Your task to perform on an android device: toggle translation in the chrome app Image 0: 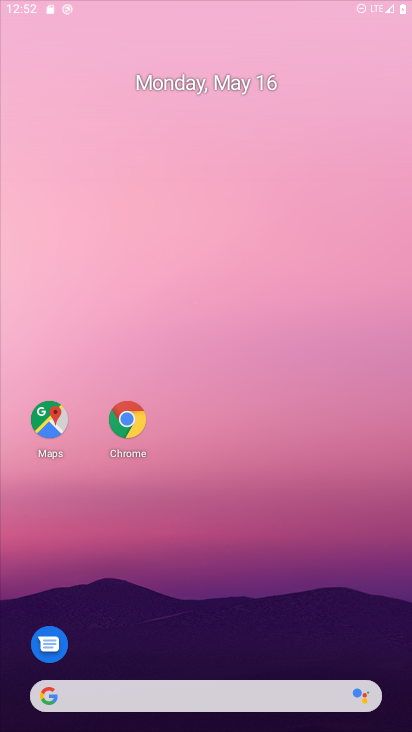
Step 0: click (199, 144)
Your task to perform on an android device: toggle translation in the chrome app Image 1: 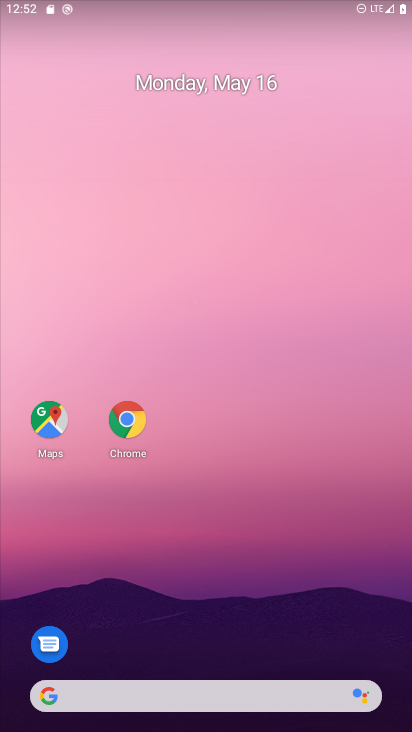
Step 1: drag from (212, 563) to (205, 196)
Your task to perform on an android device: toggle translation in the chrome app Image 2: 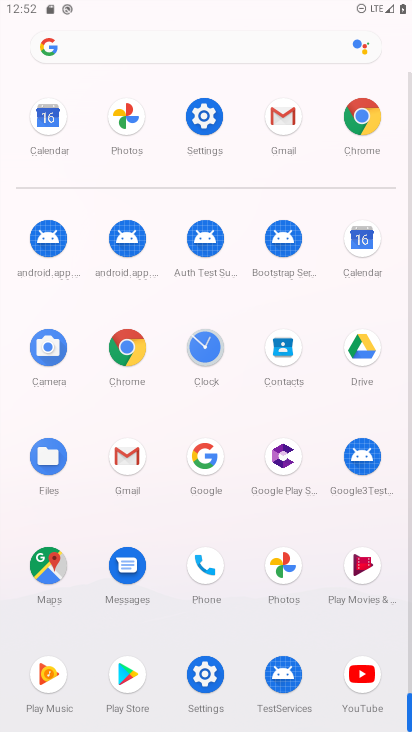
Step 2: click (367, 108)
Your task to perform on an android device: toggle translation in the chrome app Image 3: 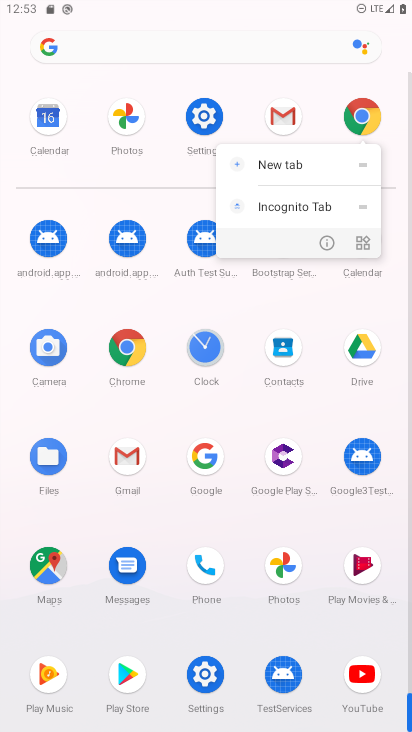
Step 3: click (318, 236)
Your task to perform on an android device: toggle translation in the chrome app Image 4: 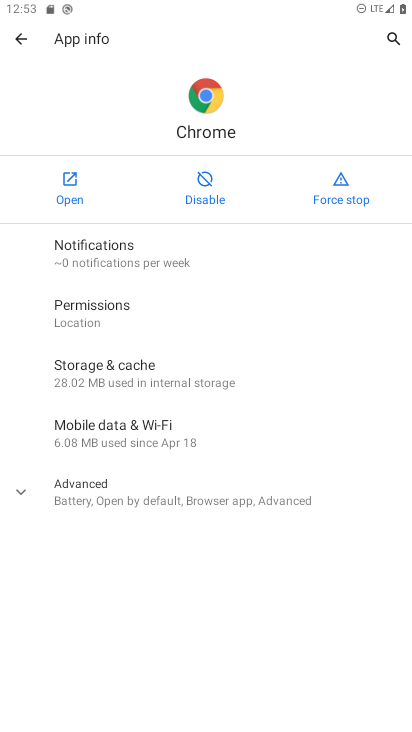
Step 4: click (78, 175)
Your task to perform on an android device: toggle translation in the chrome app Image 5: 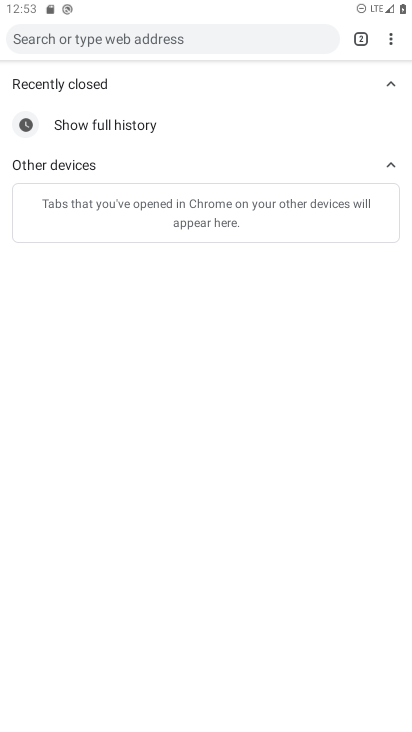
Step 5: drag from (393, 43) to (267, 322)
Your task to perform on an android device: toggle translation in the chrome app Image 6: 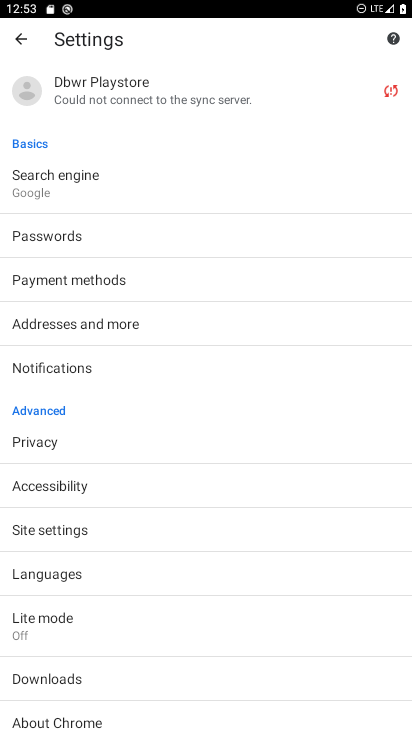
Step 6: click (110, 572)
Your task to perform on an android device: toggle translation in the chrome app Image 7: 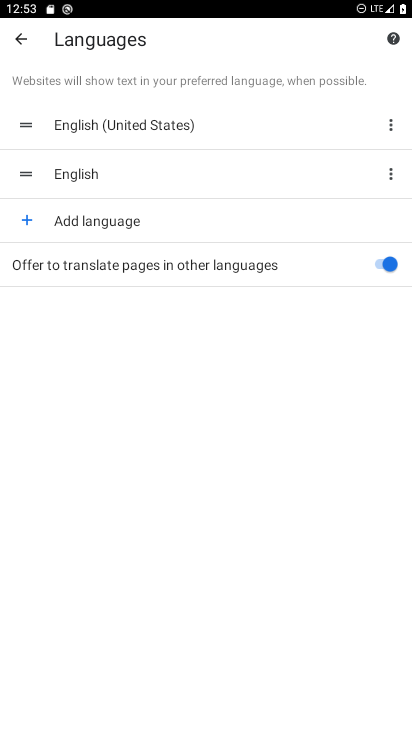
Step 7: click (379, 259)
Your task to perform on an android device: toggle translation in the chrome app Image 8: 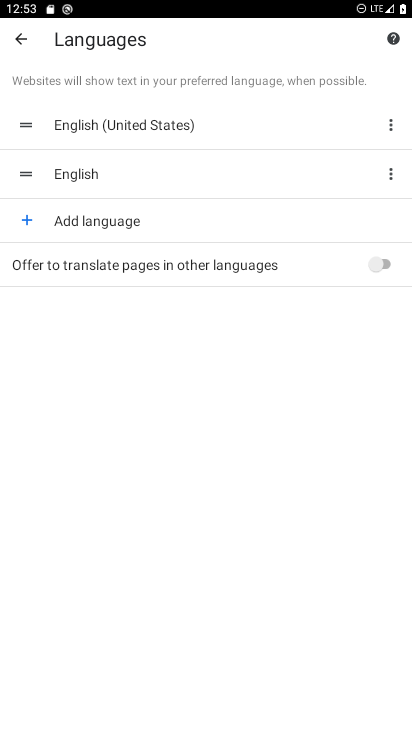
Step 8: task complete